Your task to perform on an android device: Show me popular videos on Youtube Image 0: 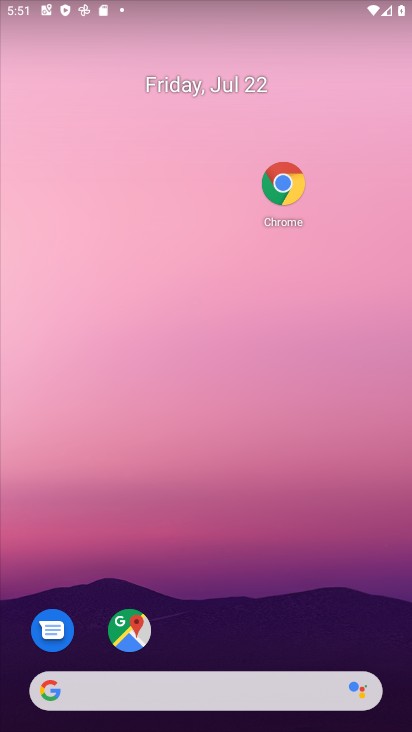
Step 0: drag from (199, 582) to (211, 112)
Your task to perform on an android device: Show me popular videos on Youtube Image 1: 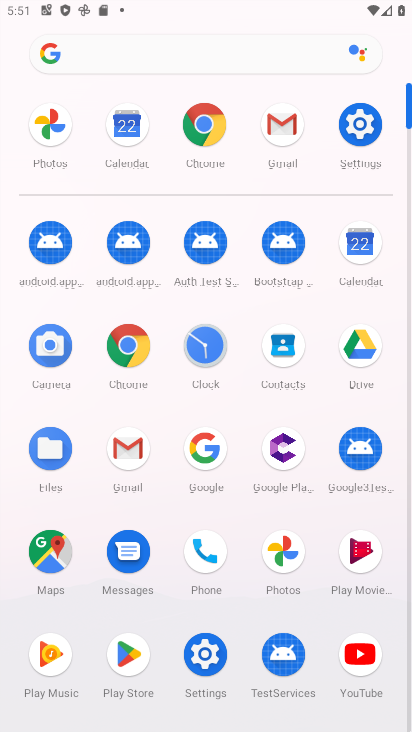
Step 1: click (345, 680)
Your task to perform on an android device: Show me popular videos on Youtube Image 2: 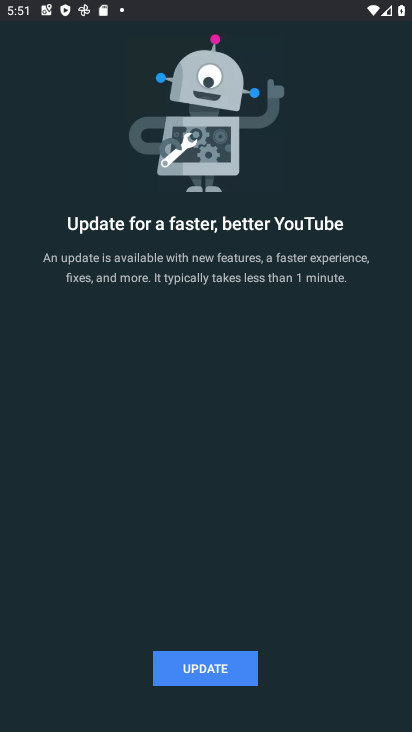
Step 2: click (226, 665)
Your task to perform on an android device: Show me popular videos on Youtube Image 3: 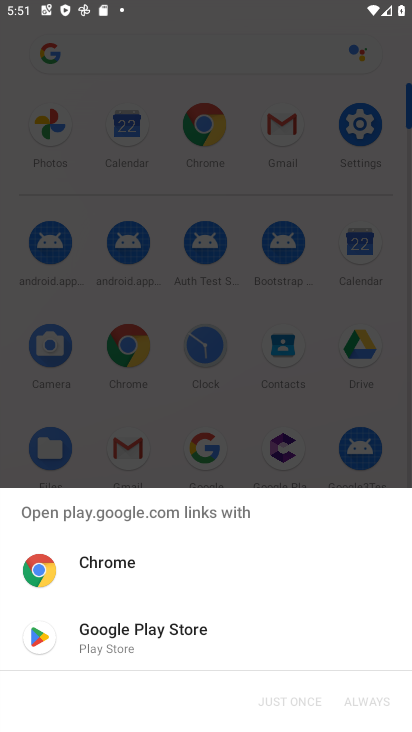
Step 3: click (151, 639)
Your task to perform on an android device: Show me popular videos on Youtube Image 4: 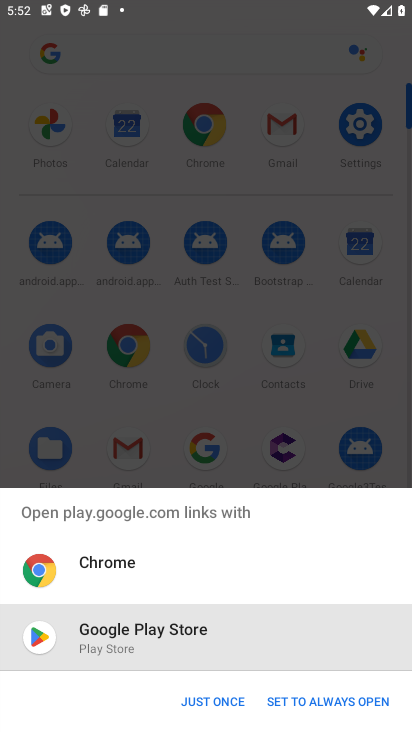
Step 4: click (335, 689)
Your task to perform on an android device: Show me popular videos on Youtube Image 5: 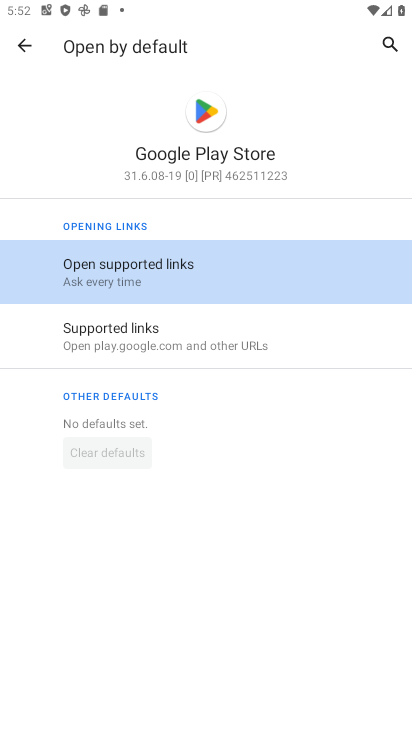
Step 5: click (176, 278)
Your task to perform on an android device: Show me popular videos on Youtube Image 6: 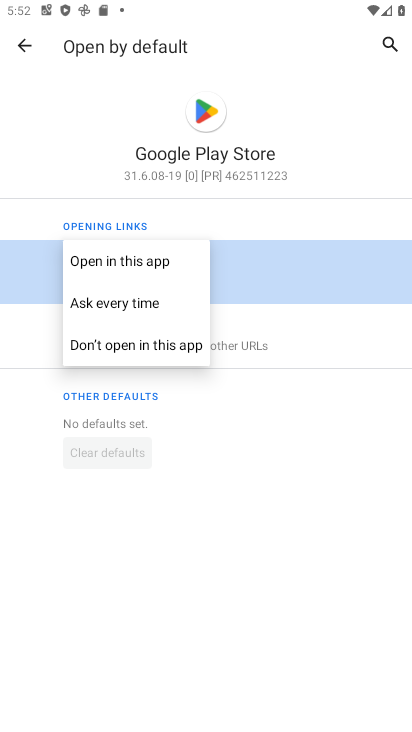
Step 6: click (123, 260)
Your task to perform on an android device: Show me popular videos on Youtube Image 7: 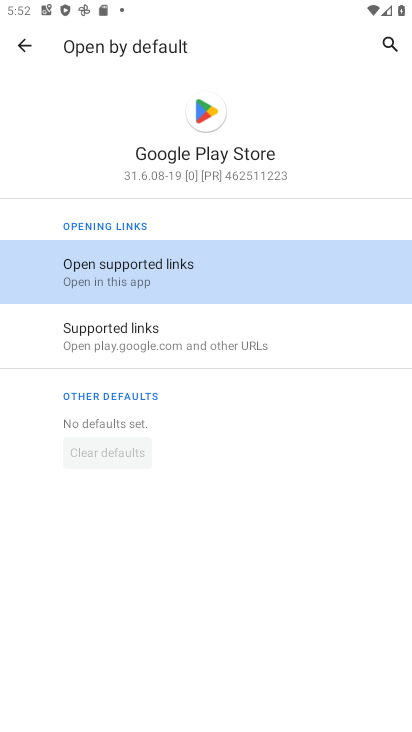
Step 7: click (23, 46)
Your task to perform on an android device: Show me popular videos on Youtube Image 8: 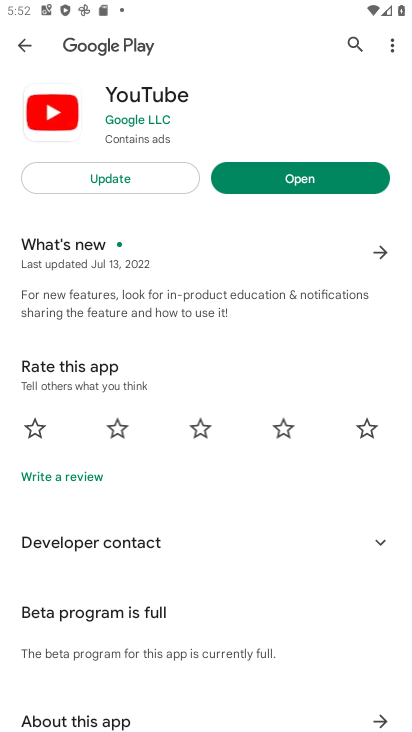
Step 8: click (110, 170)
Your task to perform on an android device: Show me popular videos on Youtube Image 9: 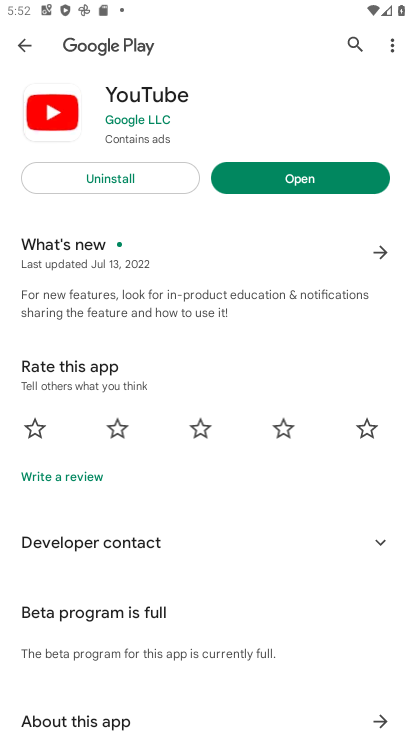
Step 9: click (263, 179)
Your task to perform on an android device: Show me popular videos on Youtube Image 10: 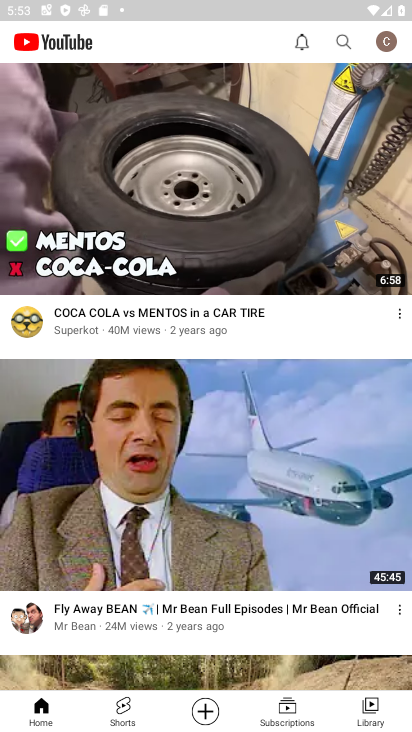
Step 10: task complete